Your task to perform on an android device: Go to accessibility settings Image 0: 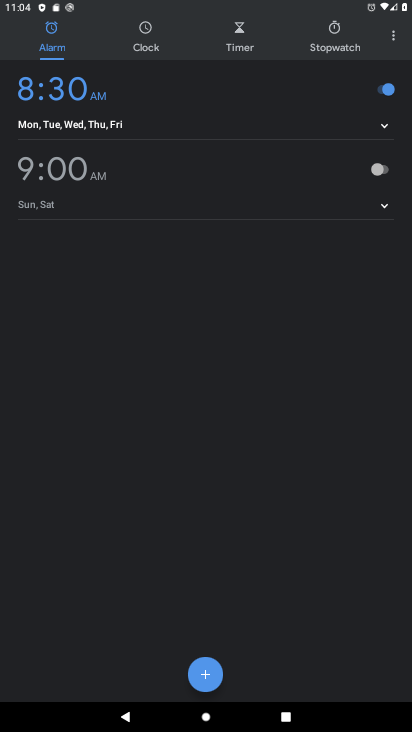
Step 0: press home button
Your task to perform on an android device: Go to accessibility settings Image 1: 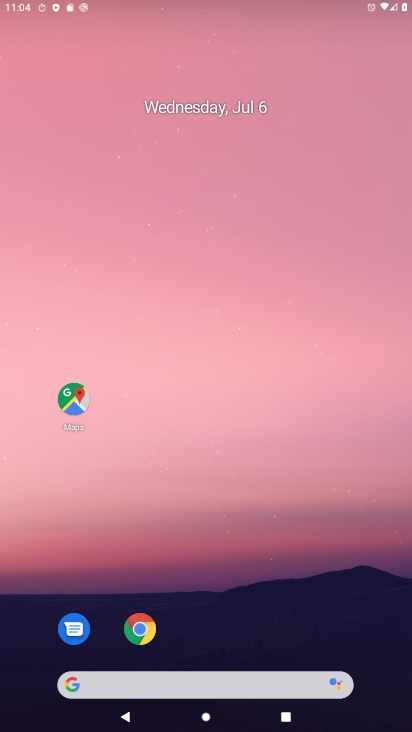
Step 1: drag from (264, 518) to (264, 190)
Your task to perform on an android device: Go to accessibility settings Image 2: 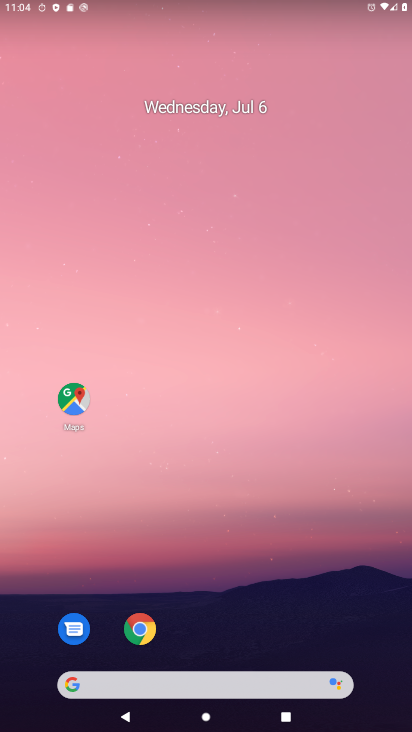
Step 2: drag from (203, 657) to (236, 139)
Your task to perform on an android device: Go to accessibility settings Image 3: 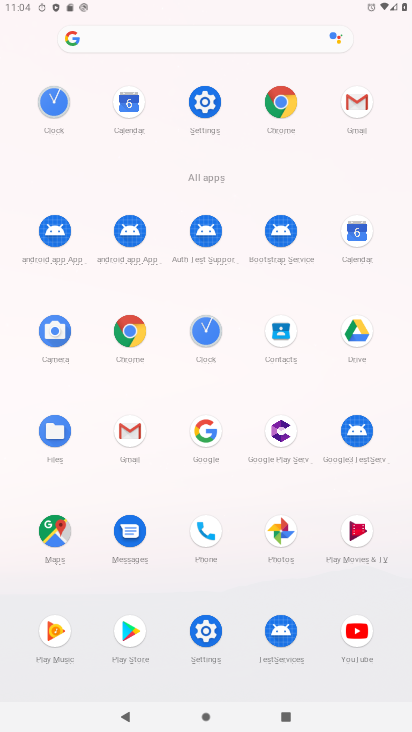
Step 3: click (198, 103)
Your task to perform on an android device: Go to accessibility settings Image 4: 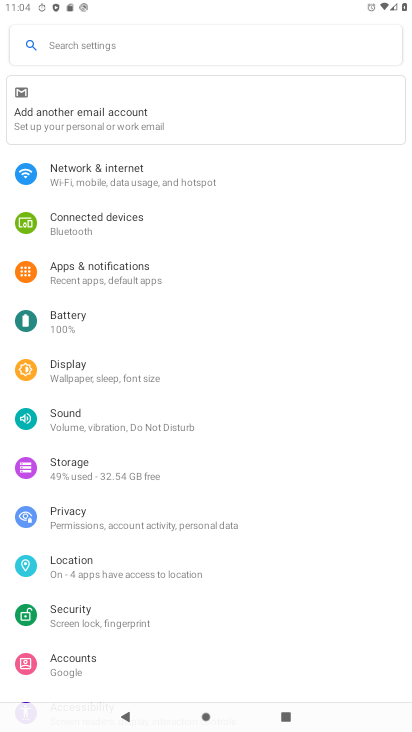
Step 4: drag from (142, 629) to (144, 185)
Your task to perform on an android device: Go to accessibility settings Image 5: 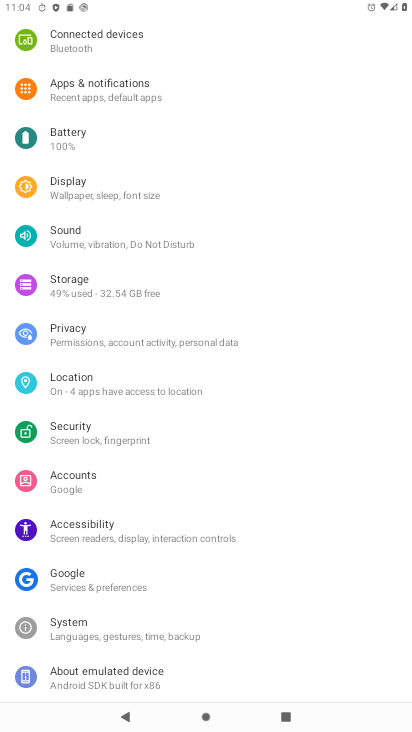
Step 5: click (88, 519)
Your task to perform on an android device: Go to accessibility settings Image 6: 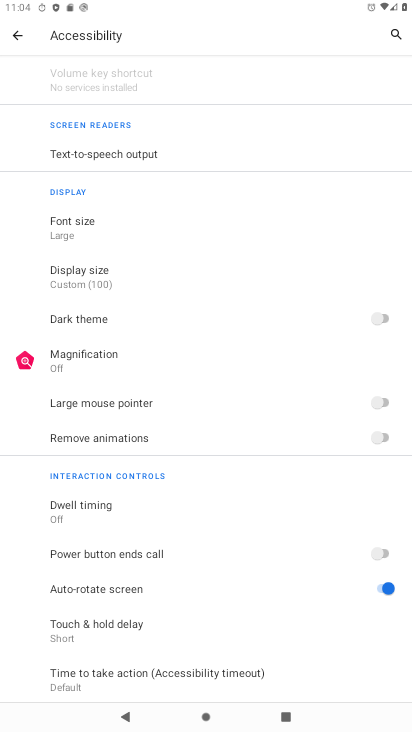
Step 6: task complete